Your task to perform on an android device: Go to battery settings Image 0: 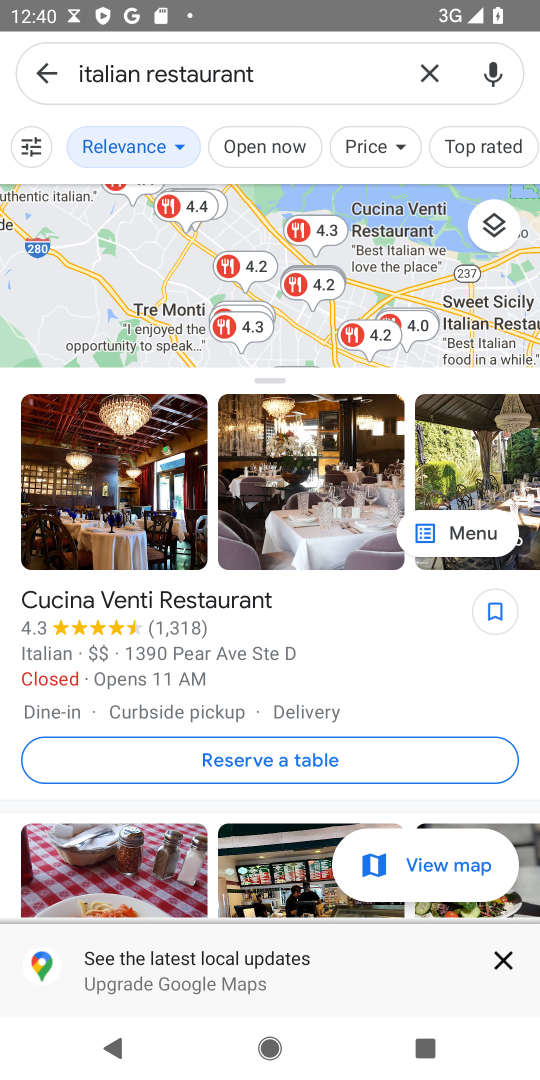
Step 0: press home button
Your task to perform on an android device: Go to battery settings Image 1: 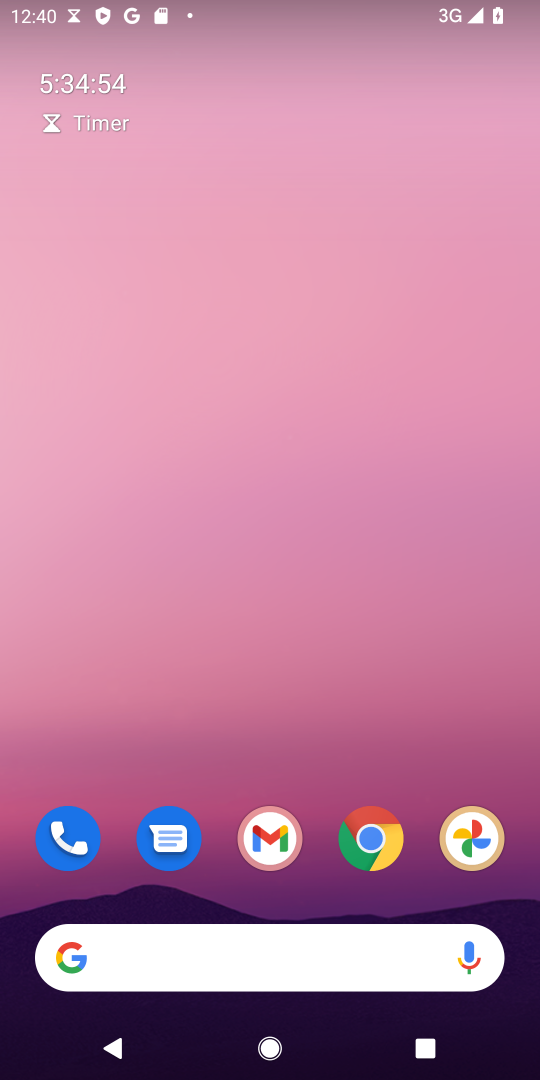
Step 1: drag from (303, 711) to (347, 5)
Your task to perform on an android device: Go to battery settings Image 2: 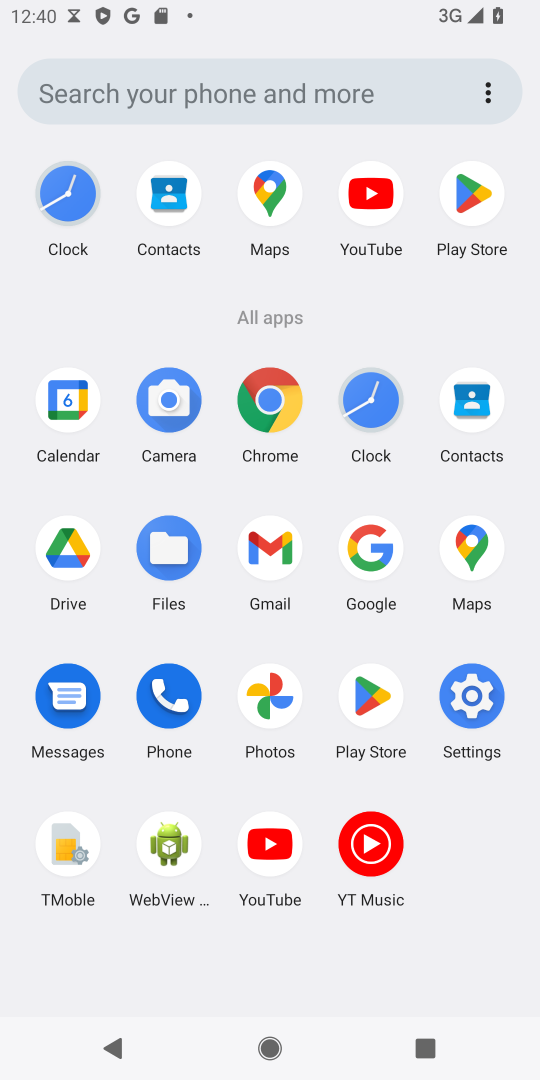
Step 2: click (476, 693)
Your task to perform on an android device: Go to battery settings Image 3: 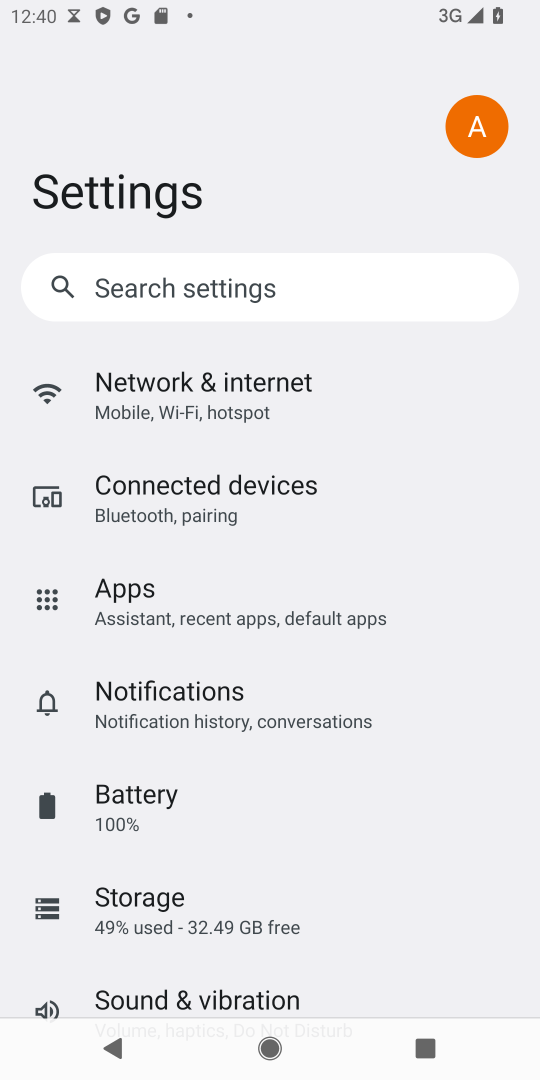
Step 3: click (155, 820)
Your task to perform on an android device: Go to battery settings Image 4: 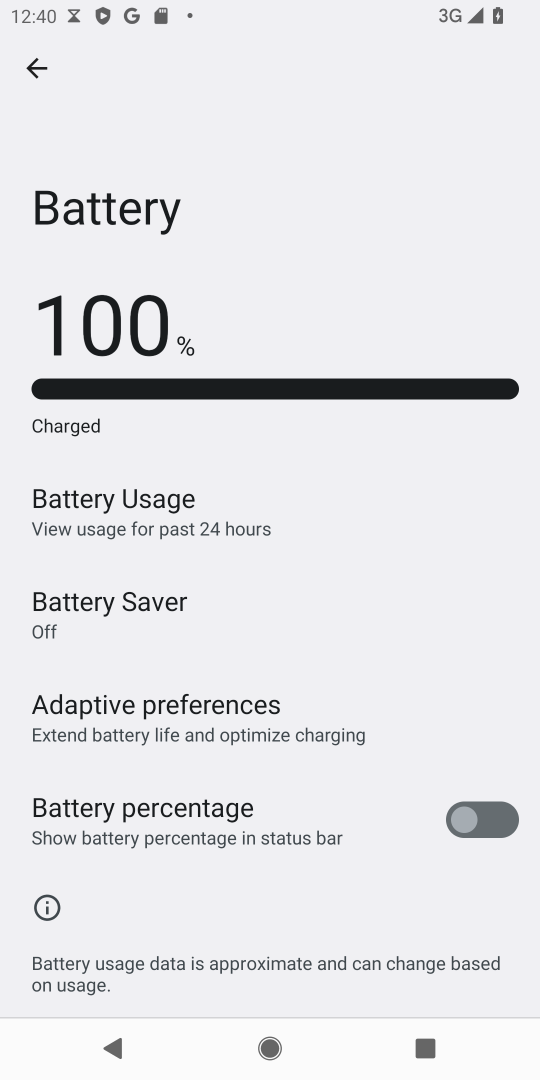
Step 4: task complete